Your task to perform on an android device: Go to accessibility settings Image 0: 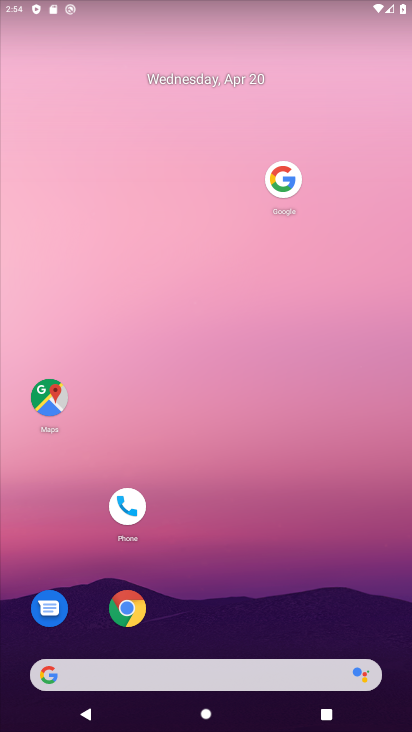
Step 0: drag from (299, 634) to (235, 149)
Your task to perform on an android device: Go to accessibility settings Image 1: 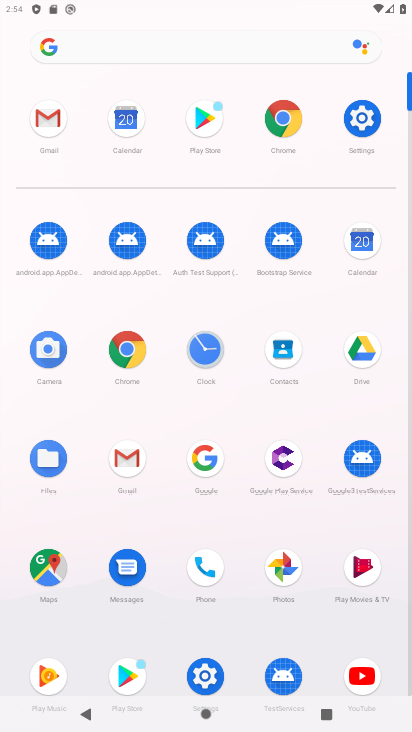
Step 1: click (359, 119)
Your task to perform on an android device: Go to accessibility settings Image 2: 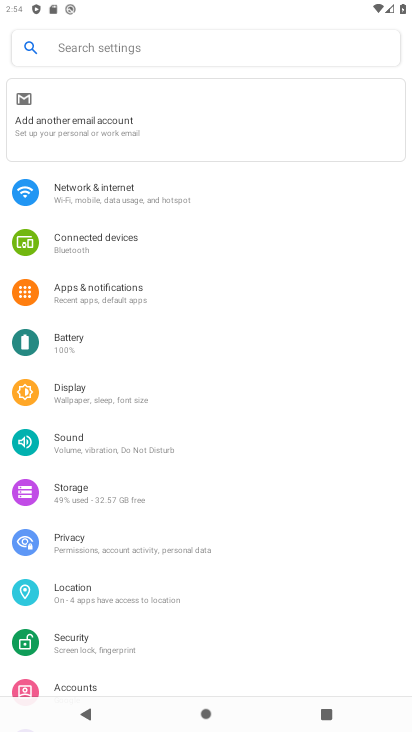
Step 2: drag from (173, 610) to (215, 155)
Your task to perform on an android device: Go to accessibility settings Image 3: 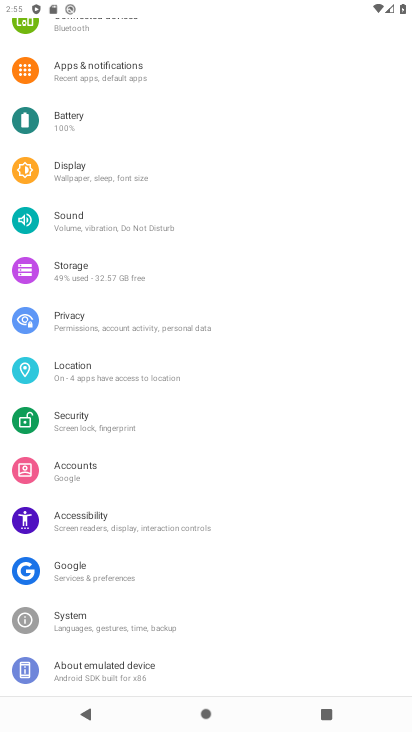
Step 3: click (111, 520)
Your task to perform on an android device: Go to accessibility settings Image 4: 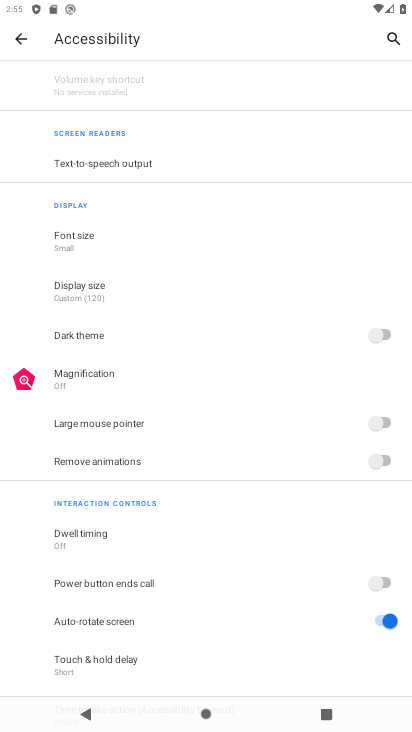
Step 4: task complete